Your task to perform on an android device: Go to accessibility settings Image 0: 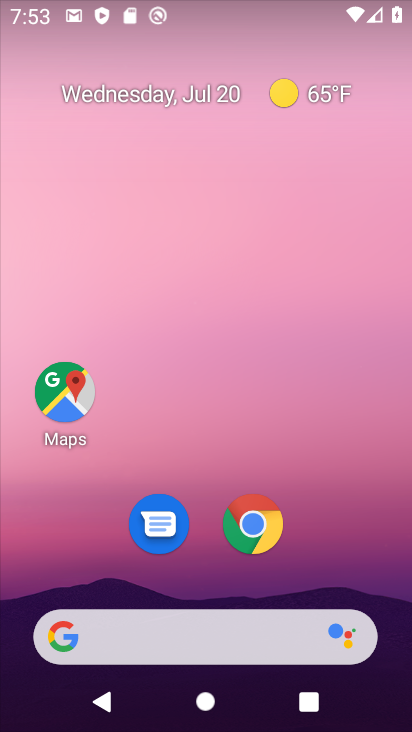
Step 0: drag from (348, 546) to (255, 67)
Your task to perform on an android device: Go to accessibility settings Image 1: 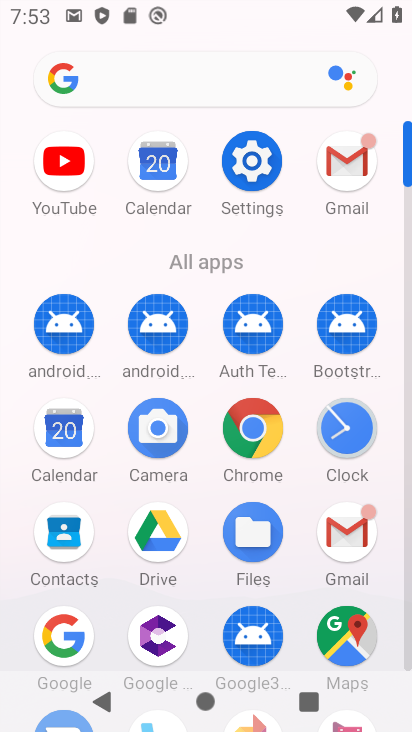
Step 1: click (257, 160)
Your task to perform on an android device: Go to accessibility settings Image 2: 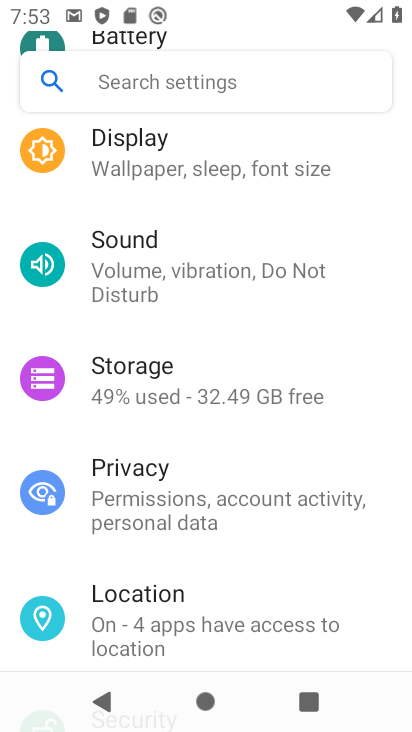
Step 2: drag from (221, 564) to (214, 73)
Your task to perform on an android device: Go to accessibility settings Image 3: 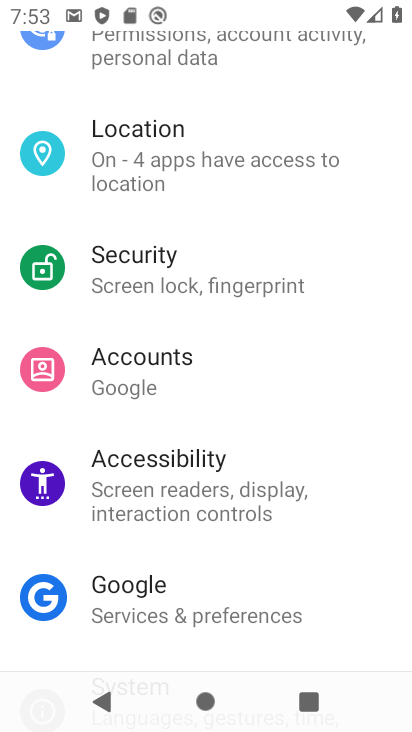
Step 3: click (198, 484)
Your task to perform on an android device: Go to accessibility settings Image 4: 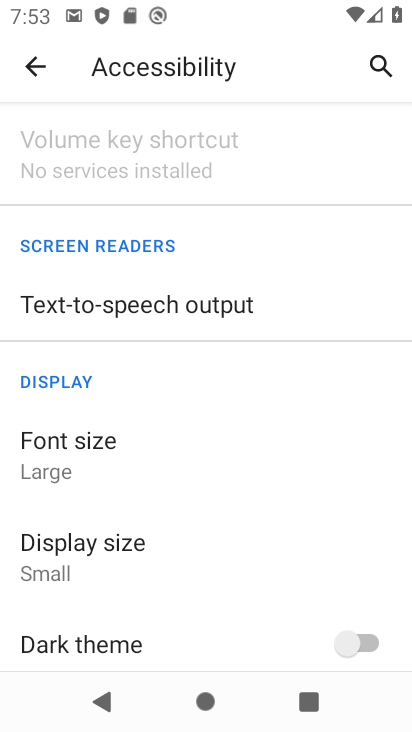
Step 4: task complete